Your task to perform on an android device: toggle airplane mode Image 0: 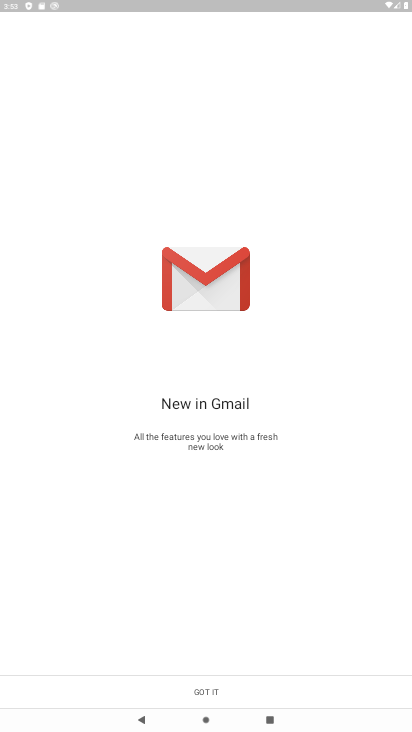
Step 0: press home button
Your task to perform on an android device: toggle airplane mode Image 1: 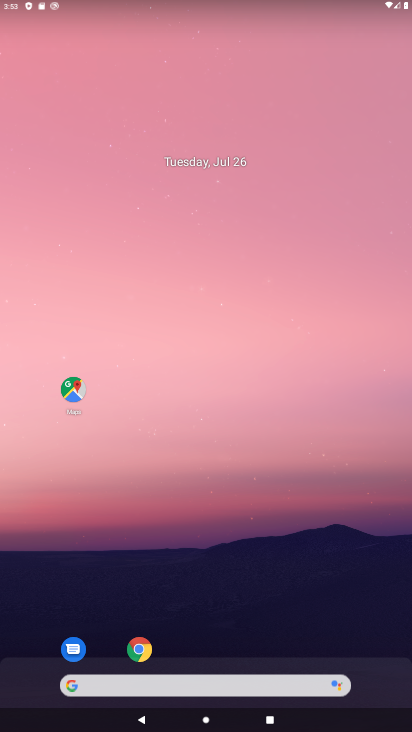
Step 1: drag from (218, 649) to (213, 208)
Your task to perform on an android device: toggle airplane mode Image 2: 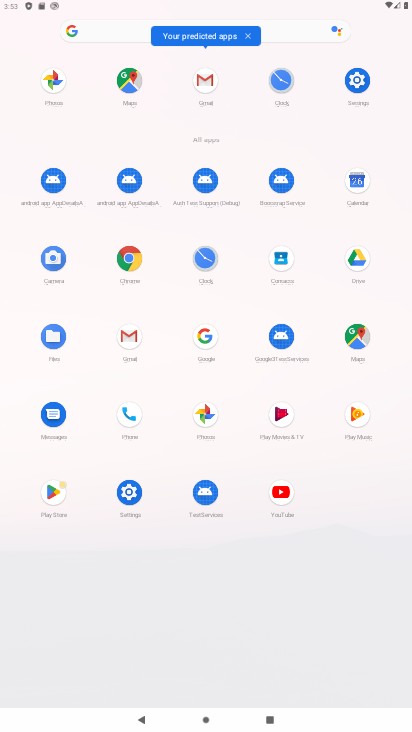
Step 2: click (131, 499)
Your task to perform on an android device: toggle airplane mode Image 3: 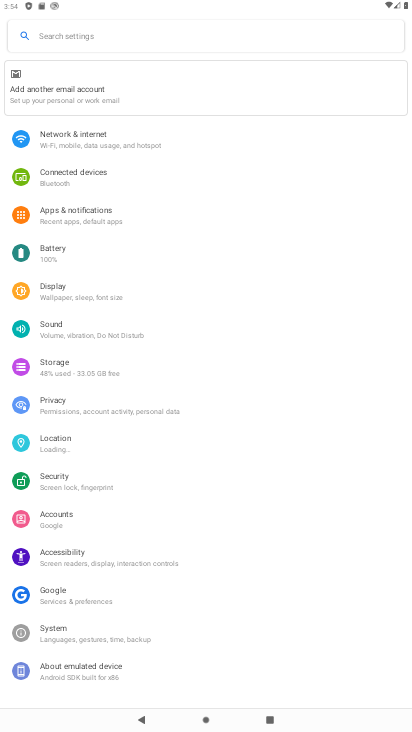
Step 3: click (160, 151)
Your task to perform on an android device: toggle airplane mode Image 4: 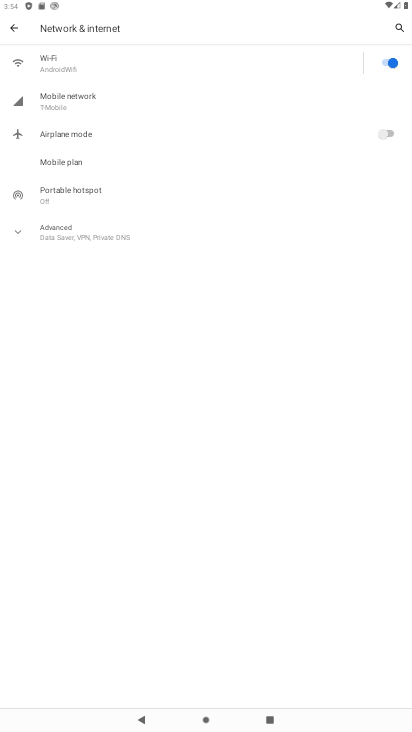
Step 4: click (387, 138)
Your task to perform on an android device: toggle airplane mode Image 5: 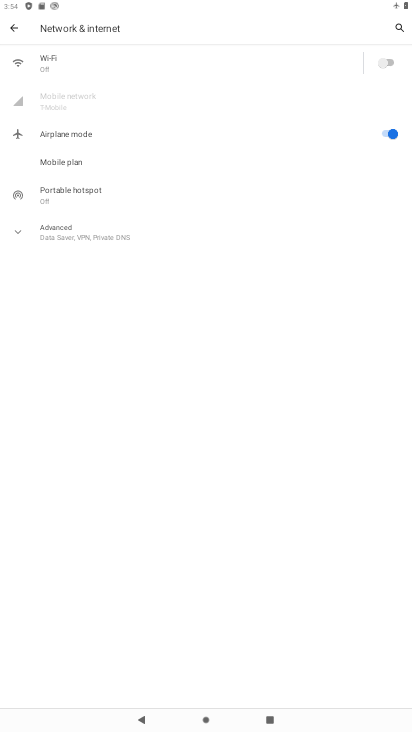
Step 5: task complete